Your task to perform on an android device: What's on my calendar tomorrow? Image 0: 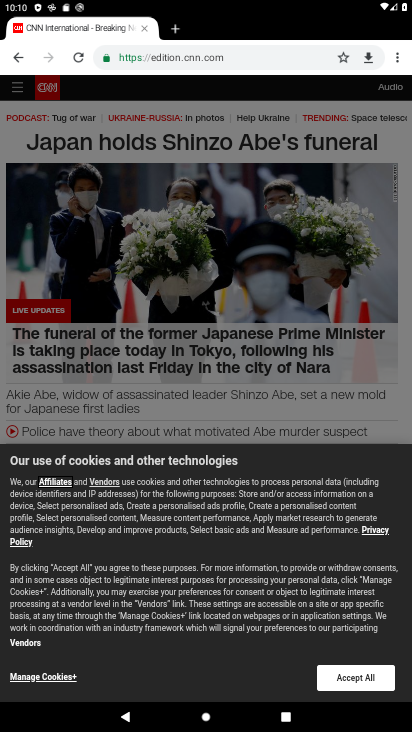
Step 0: press home button
Your task to perform on an android device: What's on my calendar tomorrow? Image 1: 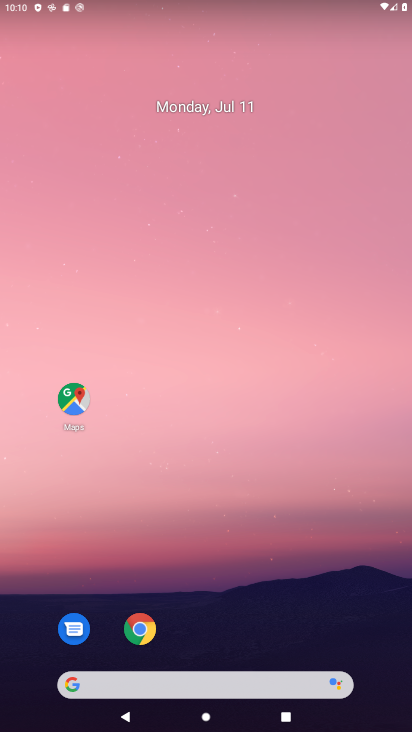
Step 1: drag from (218, 641) to (178, 88)
Your task to perform on an android device: What's on my calendar tomorrow? Image 2: 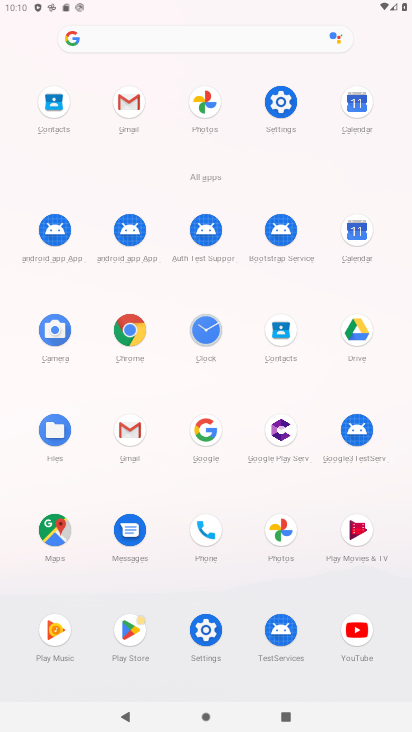
Step 2: click (366, 101)
Your task to perform on an android device: What's on my calendar tomorrow? Image 3: 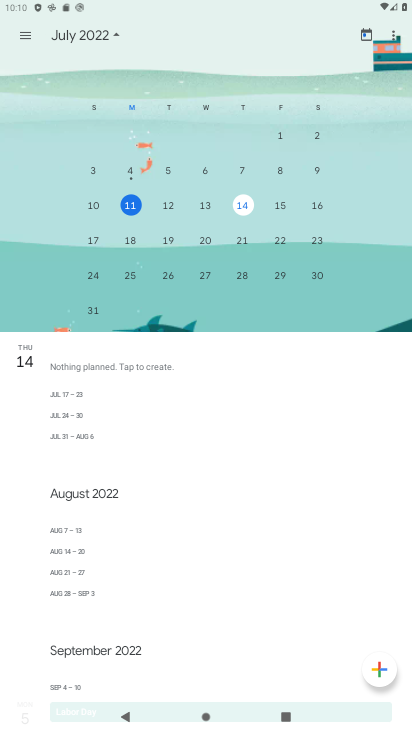
Step 3: click (282, 209)
Your task to perform on an android device: What's on my calendar tomorrow? Image 4: 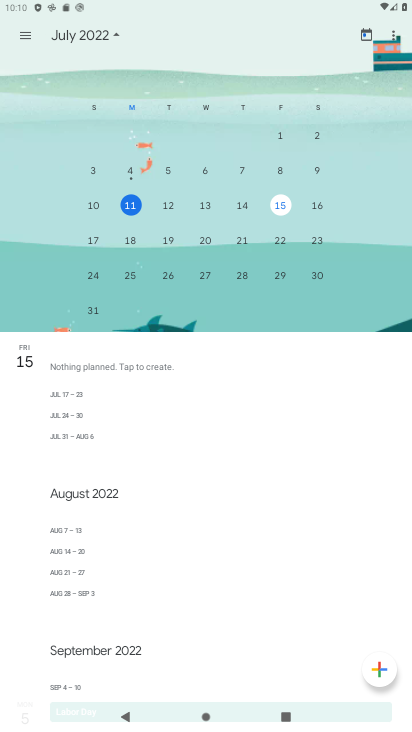
Step 4: task complete